Your task to perform on an android device: Search for vegetarian restaurants on Maps Image 0: 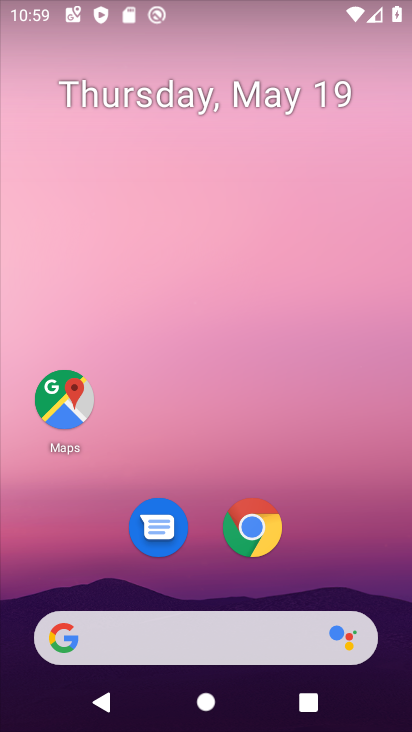
Step 0: drag from (207, 576) to (261, 46)
Your task to perform on an android device: Search for vegetarian restaurants on Maps Image 1: 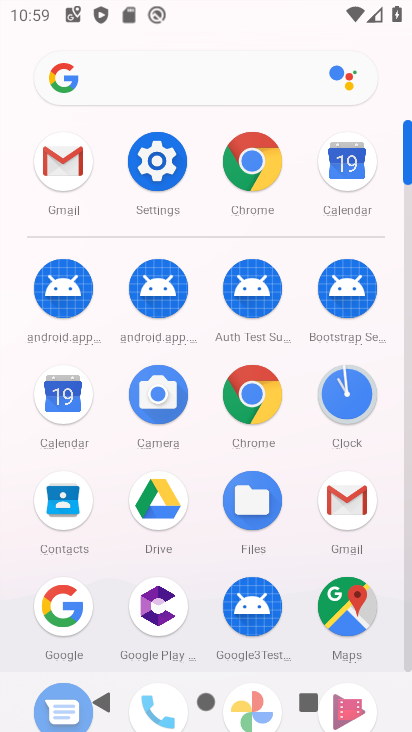
Step 1: click (345, 596)
Your task to perform on an android device: Search for vegetarian restaurants on Maps Image 2: 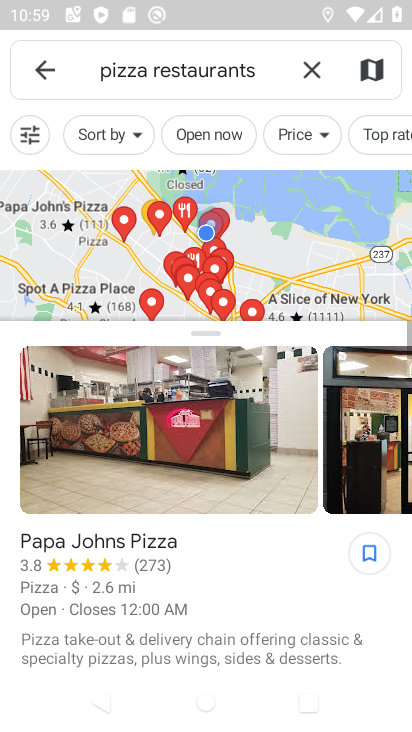
Step 2: click (312, 72)
Your task to perform on an android device: Search for vegetarian restaurants on Maps Image 3: 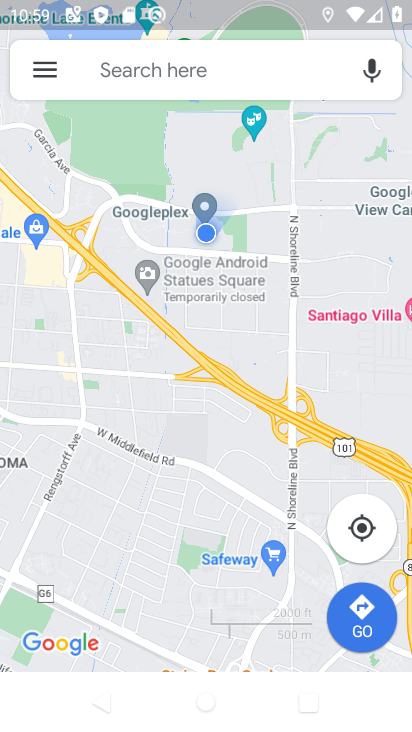
Step 3: click (259, 77)
Your task to perform on an android device: Search for vegetarian restaurants on Maps Image 4: 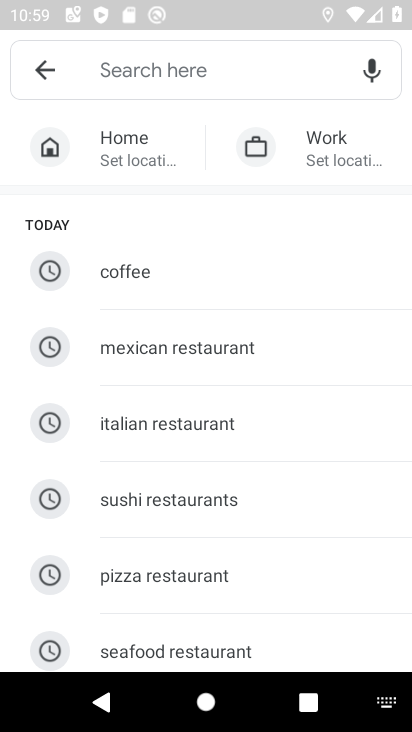
Step 4: type "vegetariian restaurants"
Your task to perform on an android device: Search for vegetarian restaurants on Maps Image 5: 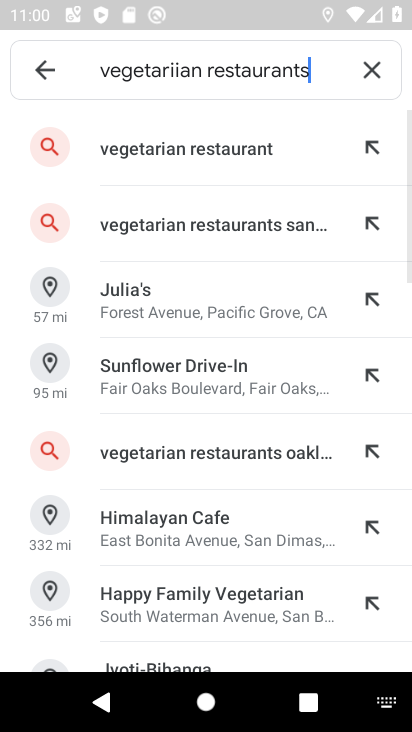
Step 5: click (135, 150)
Your task to perform on an android device: Search for vegetarian restaurants on Maps Image 6: 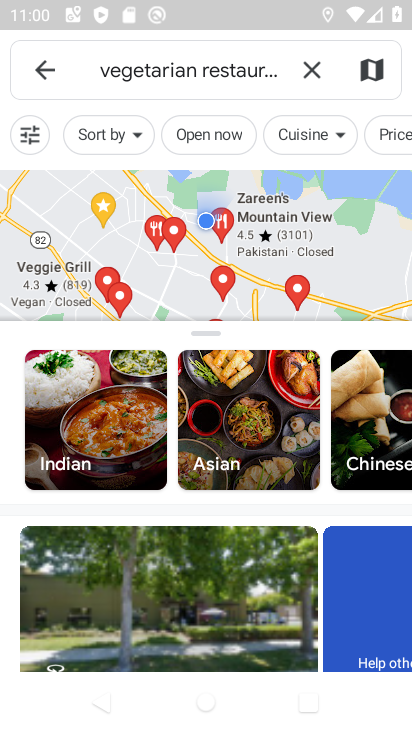
Step 6: task complete